Your task to perform on an android device: toggle show notifications on the lock screen Image 0: 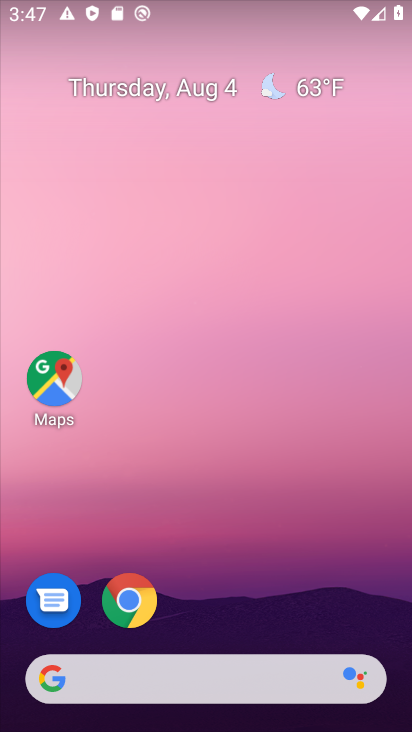
Step 0: drag from (286, 607) to (264, 104)
Your task to perform on an android device: toggle show notifications on the lock screen Image 1: 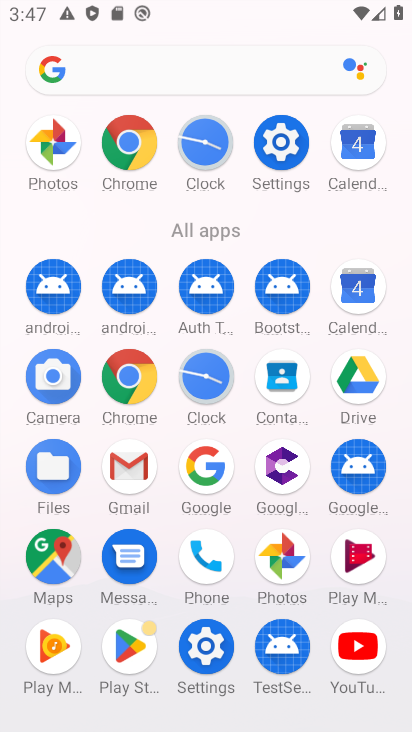
Step 1: click (225, 632)
Your task to perform on an android device: toggle show notifications on the lock screen Image 2: 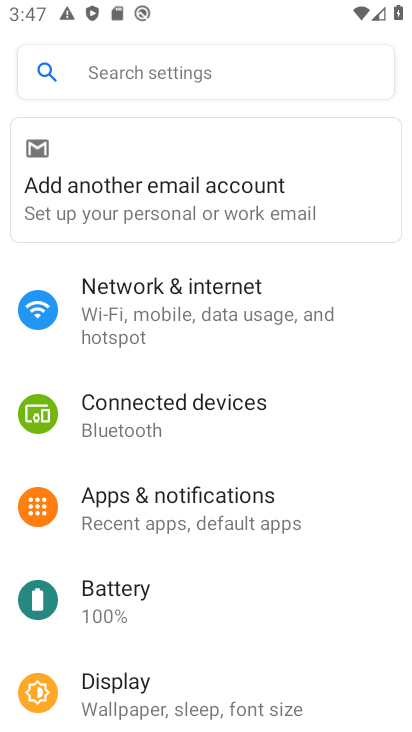
Step 2: click (192, 527)
Your task to perform on an android device: toggle show notifications on the lock screen Image 3: 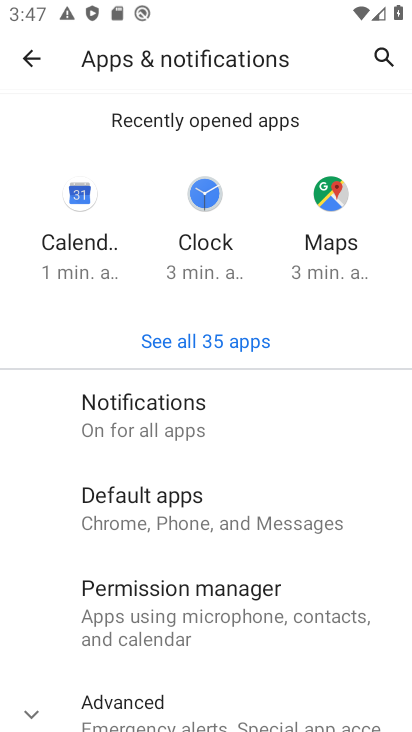
Step 3: drag from (263, 585) to (270, 399)
Your task to perform on an android device: toggle show notifications on the lock screen Image 4: 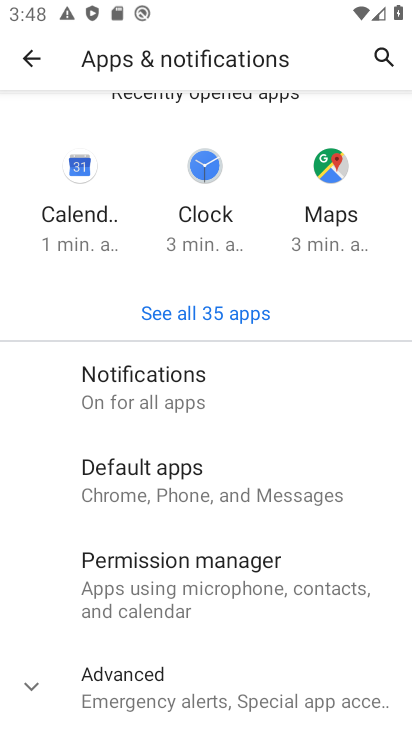
Step 4: click (149, 392)
Your task to perform on an android device: toggle show notifications on the lock screen Image 5: 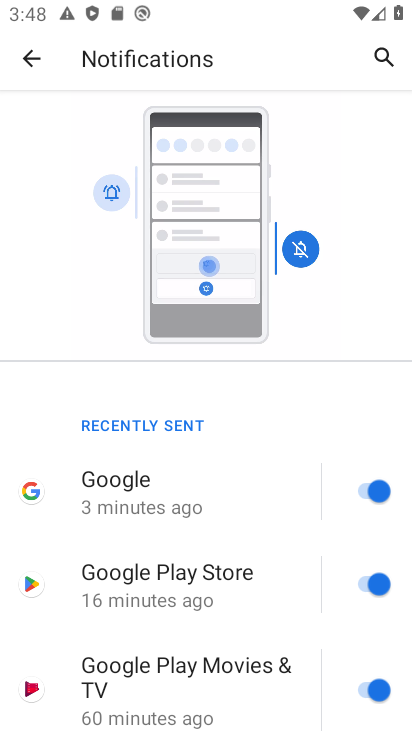
Step 5: drag from (252, 567) to (281, 109)
Your task to perform on an android device: toggle show notifications on the lock screen Image 6: 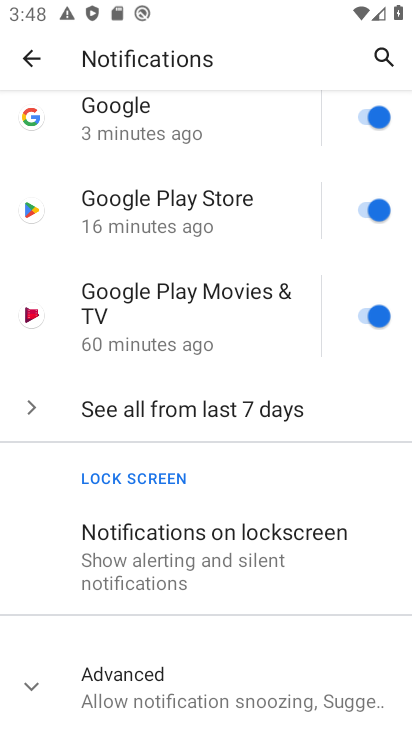
Step 6: drag from (296, 637) to (296, 263)
Your task to perform on an android device: toggle show notifications on the lock screen Image 7: 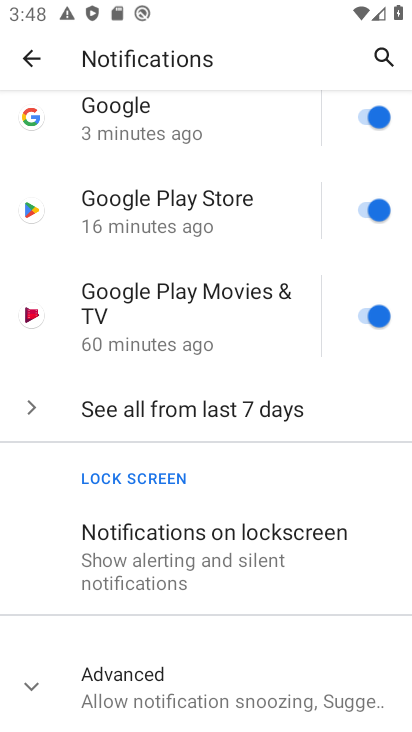
Step 7: click (233, 512)
Your task to perform on an android device: toggle show notifications on the lock screen Image 8: 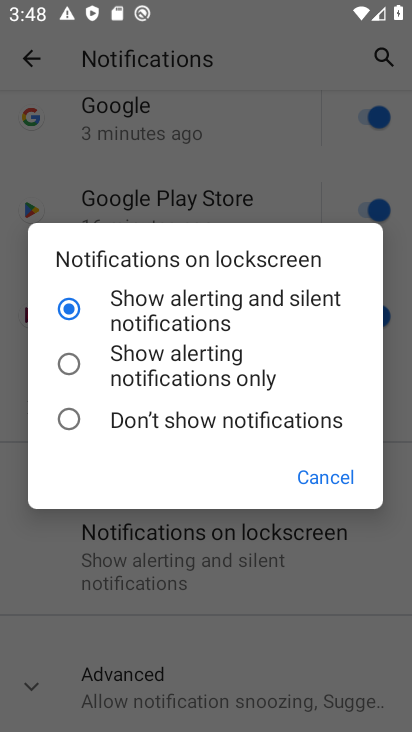
Step 8: click (148, 367)
Your task to perform on an android device: toggle show notifications on the lock screen Image 9: 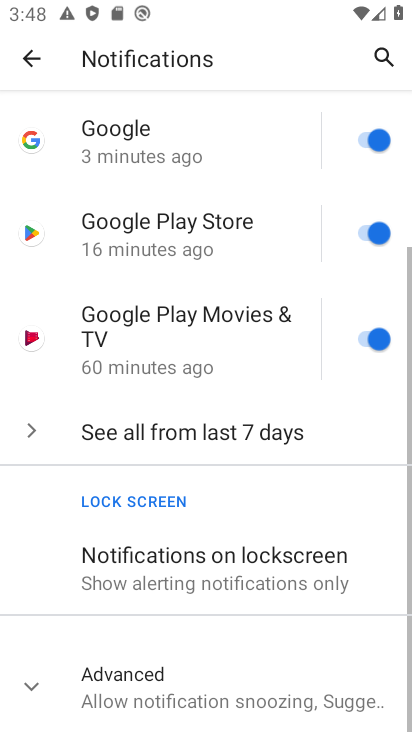
Step 9: click (176, 547)
Your task to perform on an android device: toggle show notifications on the lock screen Image 10: 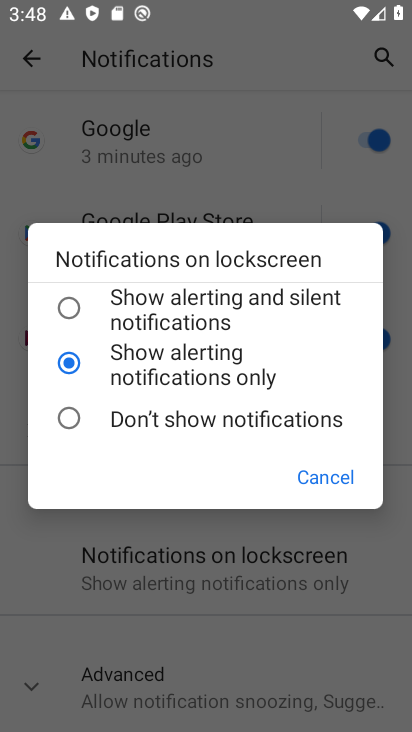
Step 10: task complete